Your task to perform on an android device: Open Google Chrome and open the bookmarks view Image 0: 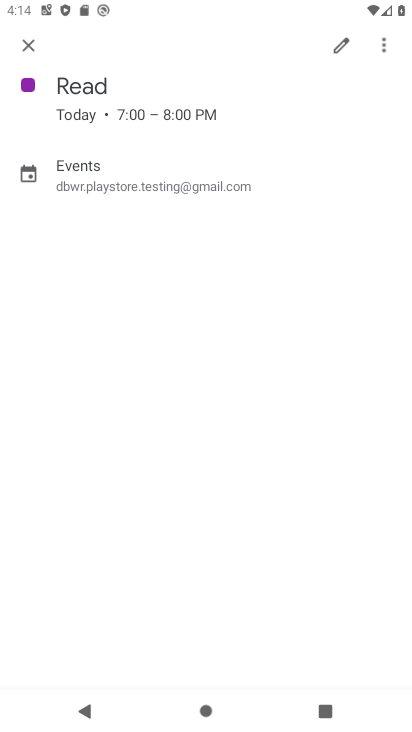
Step 0: press home button
Your task to perform on an android device: Open Google Chrome and open the bookmarks view Image 1: 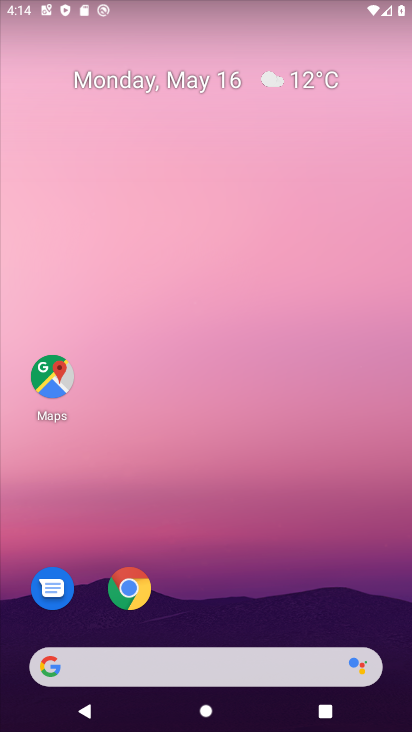
Step 1: click (131, 586)
Your task to perform on an android device: Open Google Chrome and open the bookmarks view Image 2: 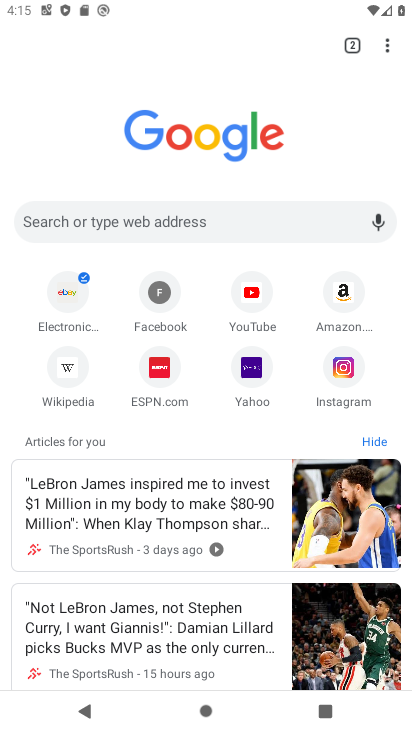
Step 2: click (383, 52)
Your task to perform on an android device: Open Google Chrome and open the bookmarks view Image 3: 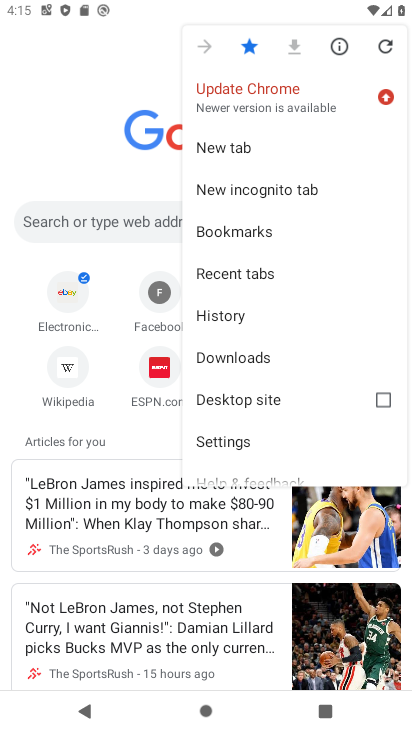
Step 3: click (235, 226)
Your task to perform on an android device: Open Google Chrome and open the bookmarks view Image 4: 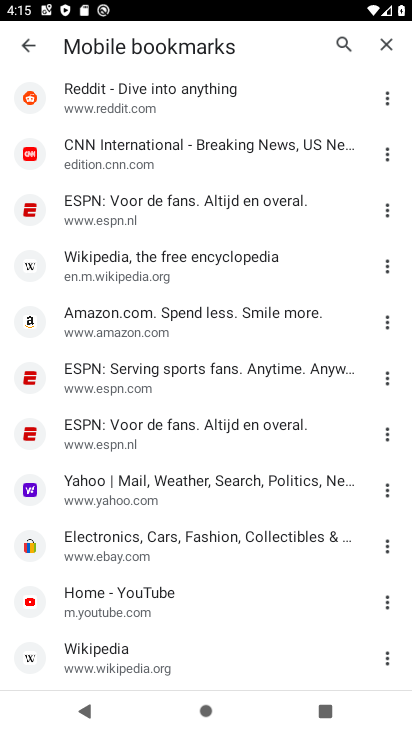
Step 4: task complete